Your task to perform on an android device: choose inbox layout in the gmail app Image 0: 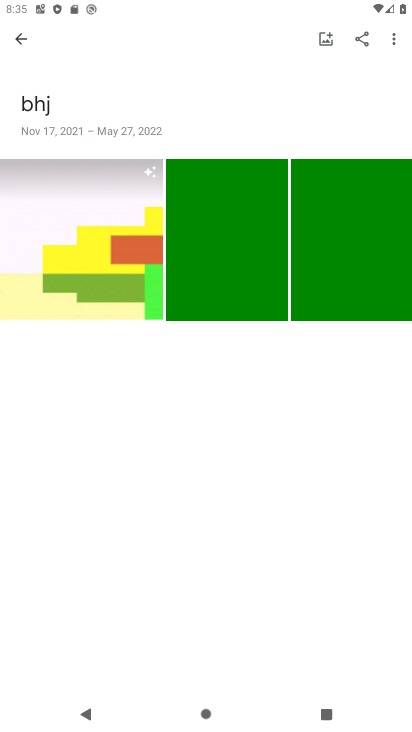
Step 0: press home button
Your task to perform on an android device: choose inbox layout in the gmail app Image 1: 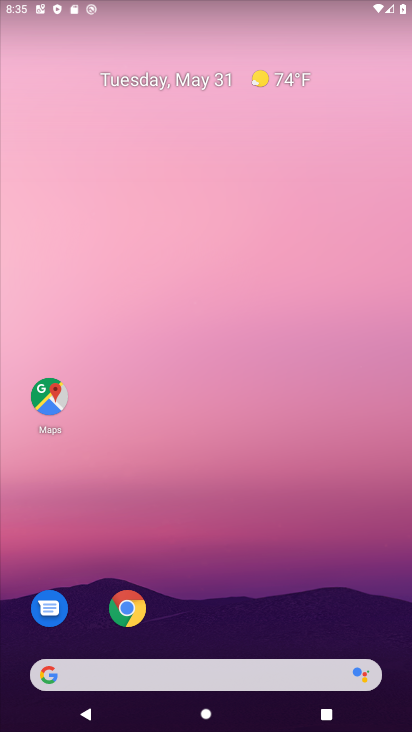
Step 1: drag from (236, 642) to (118, 3)
Your task to perform on an android device: choose inbox layout in the gmail app Image 2: 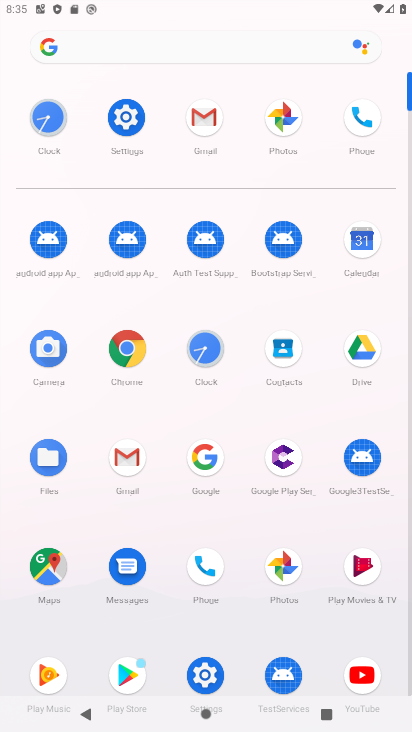
Step 2: click (114, 457)
Your task to perform on an android device: choose inbox layout in the gmail app Image 3: 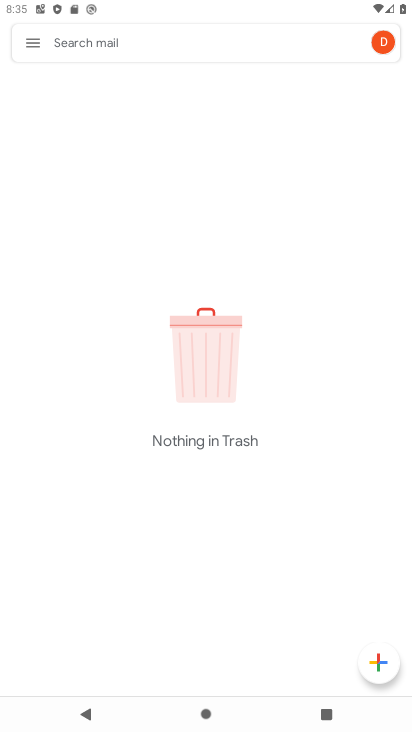
Step 3: click (30, 41)
Your task to perform on an android device: choose inbox layout in the gmail app Image 4: 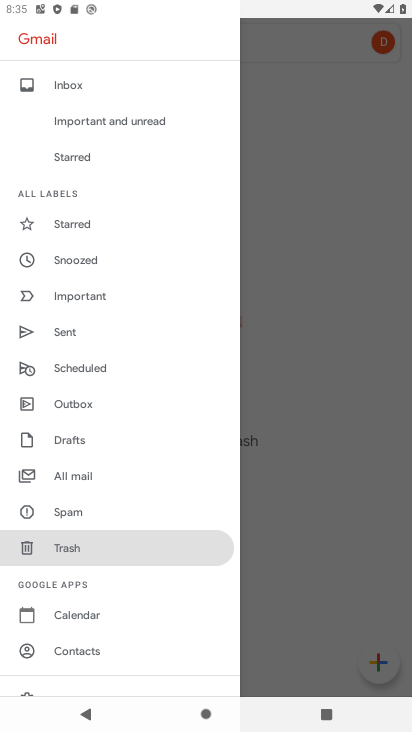
Step 4: drag from (142, 593) to (102, 103)
Your task to perform on an android device: choose inbox layout in the gmail app Image 5: 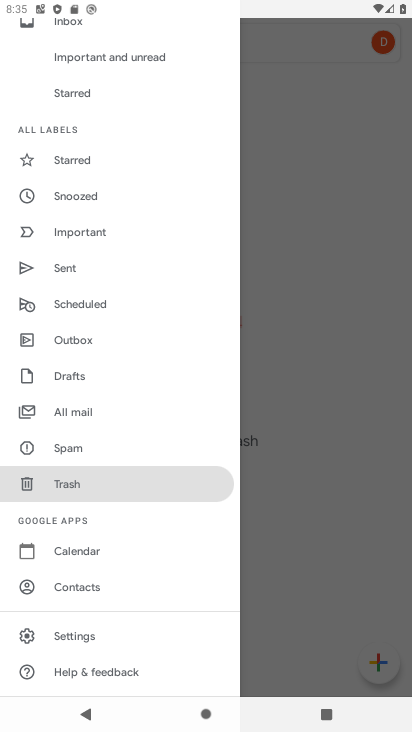
Step 5: click (47, 642)
Your task to perform on an android device: choose inbox layout in the gmail app Image 6: 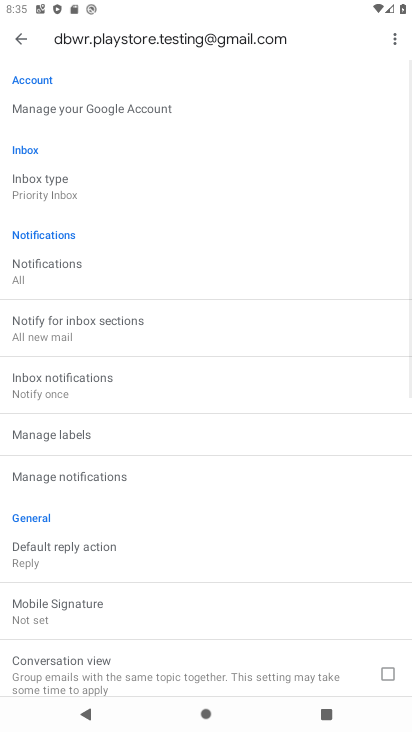
Step 6: click (63, 194)
Your task to perform on an android device: choose inbox layout in the gmail app Image 7: 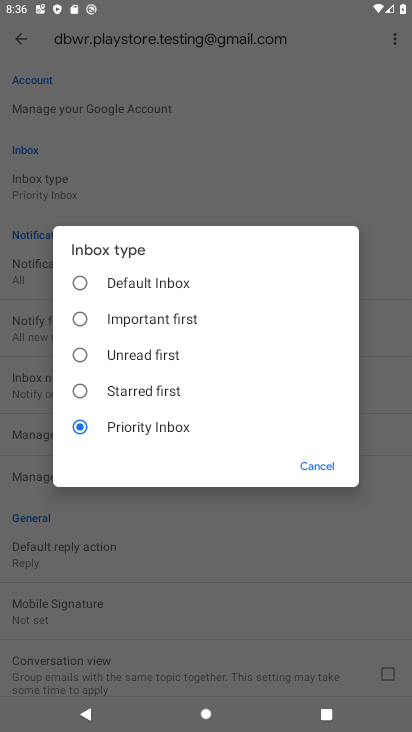
Step 7: click (90, 274)
Your task to perform on an android device: choose inbox layout in the gmail app Image 8: 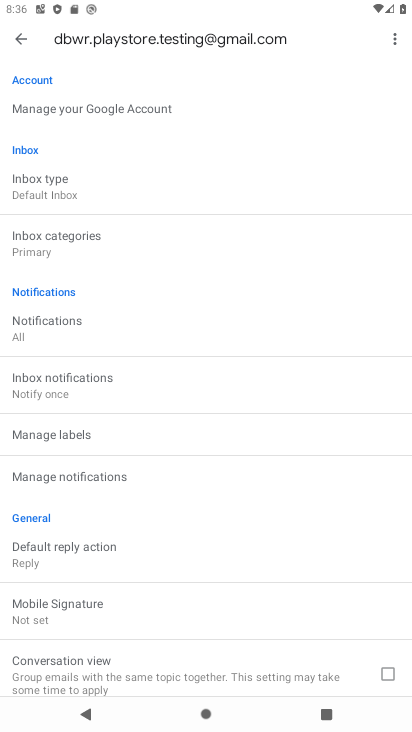
Step 8: click (73, 248)
Your task to perform on an android device: choose inbox layout in the gmail app Image 9: 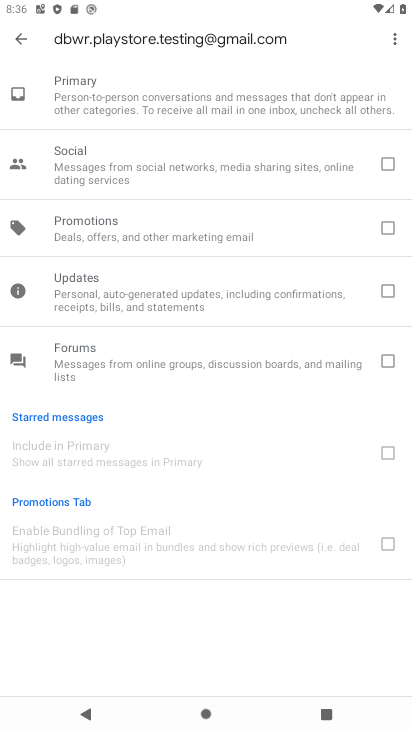
Step 9: click (23, 27)
Your task to perform on an android device: choose inbox layout in the gmail app Image 10: 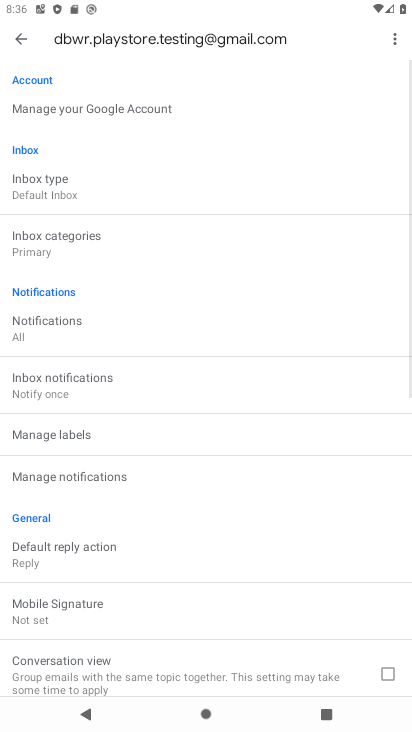
Step 10: click (26, 178)
Your task to perform on an android device: choose inbox layout in the gmail app Image 11: 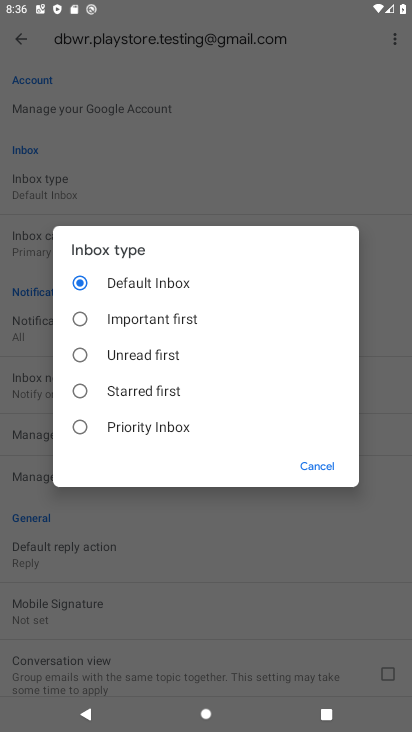
Step 11: click (78, 415)
Your task to perform on an android device: choose inbox layout in the gmail app Image 12: 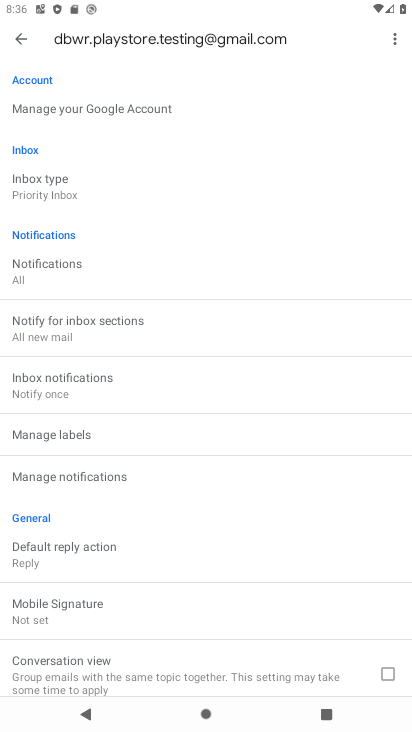
Step 12: click (17, 30)
Your task to perform on an android device: choose inbox layout in the gmail app Image 13: 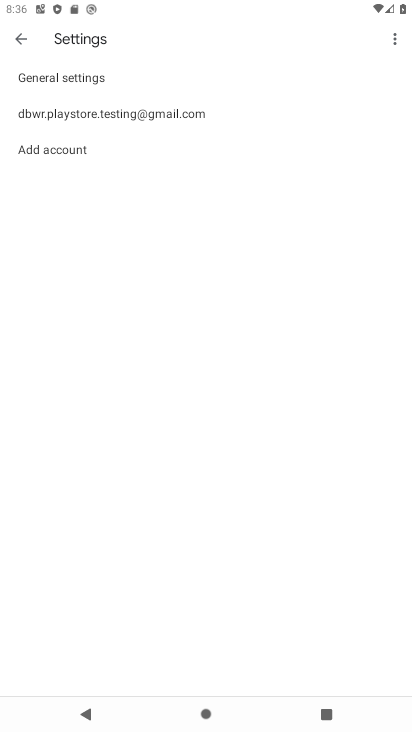
Step 13: click (17, 30)
Your task to perform on an android device: choose inbox layout in the gmail app Image 14: 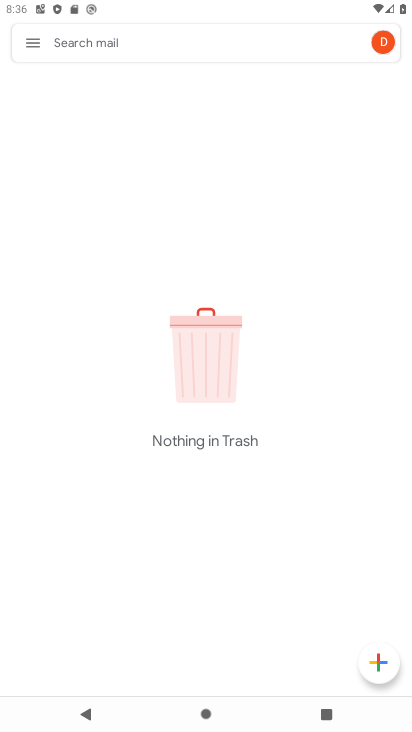
Step 14: click (38, 43)
Your task to perform on an android device: choose inbox layout in the gmail app Image 15: 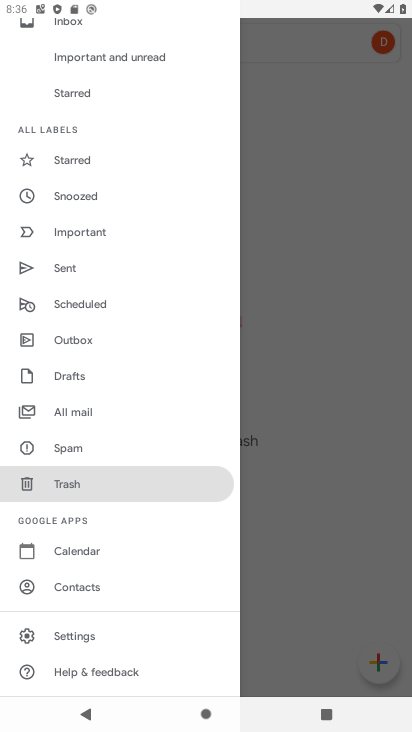
Step 15: click (67, 32)
Your task to perform on an android device: choose inbox layout in the gmail app Image 16: 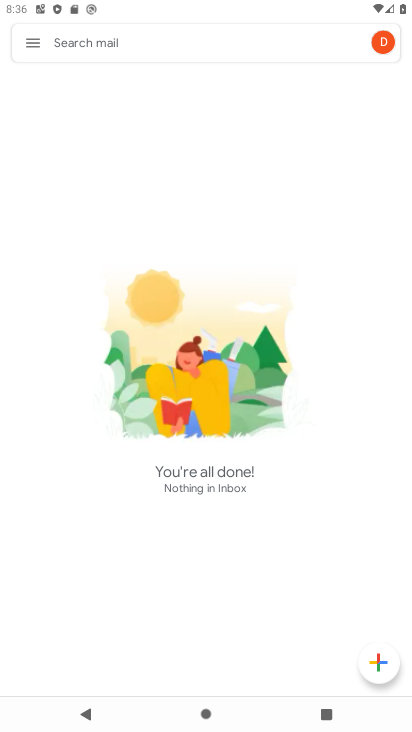
Step 16: task complete